Your task to perform on an android device: turn off sleep mode Image 0: 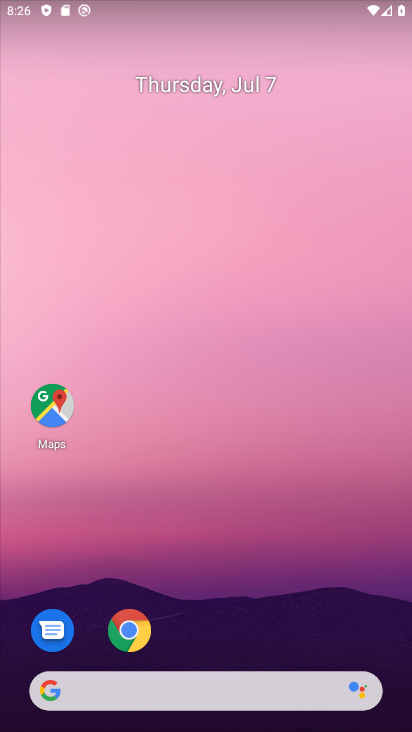
Step 0: drag from (214, 654) to (220, 192)
Your task to perform on an android device: turn off sleep mode Image 1: 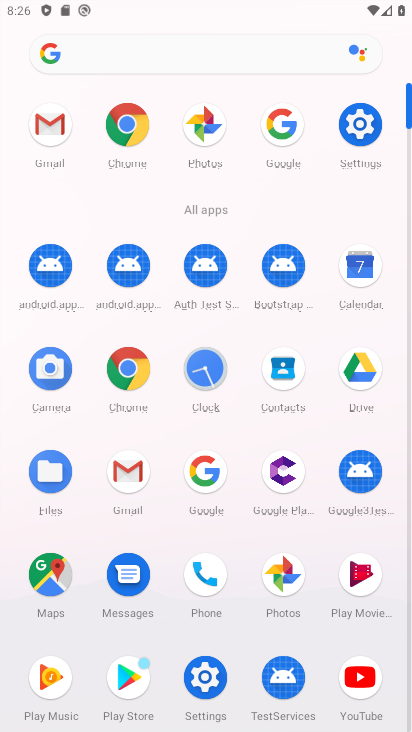
Step 1: click (346, 123)
Your task to perform on an android device: turn off sleep mode Image 2: 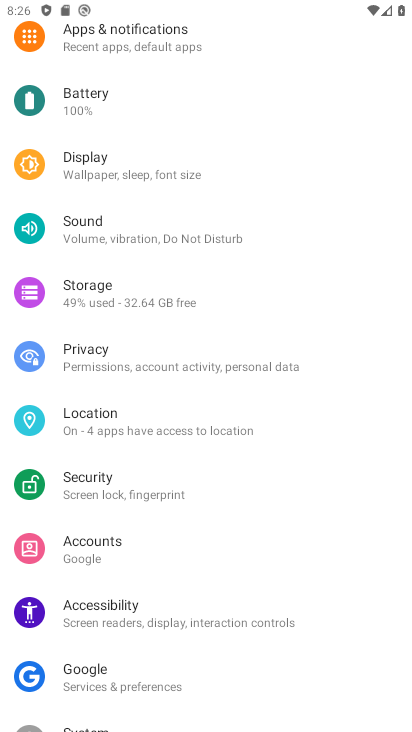
Step 2: click (101, 167)
Your task to perform on an android device: turn off sleep mode Image 3: 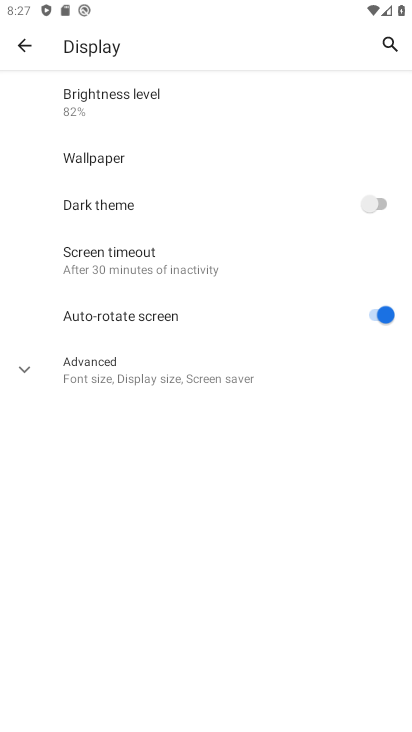
Step 3: click (129, 255)
Your task to perform on an android device: turn off sleep mode Image 4: 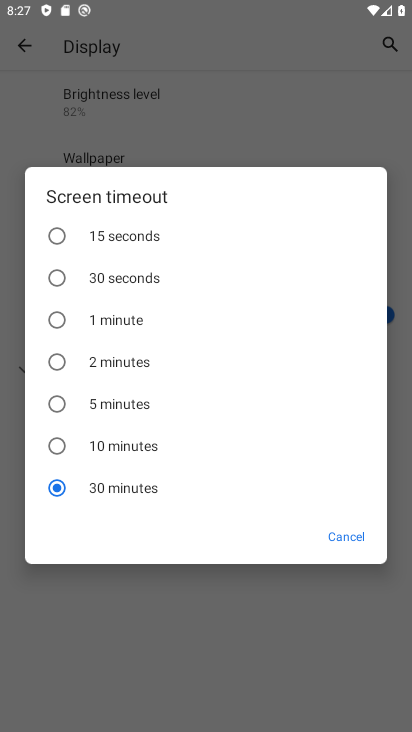
Step 4: click (169, 339)
Your task to perform on an android device: turn off sleep mode Image 5: 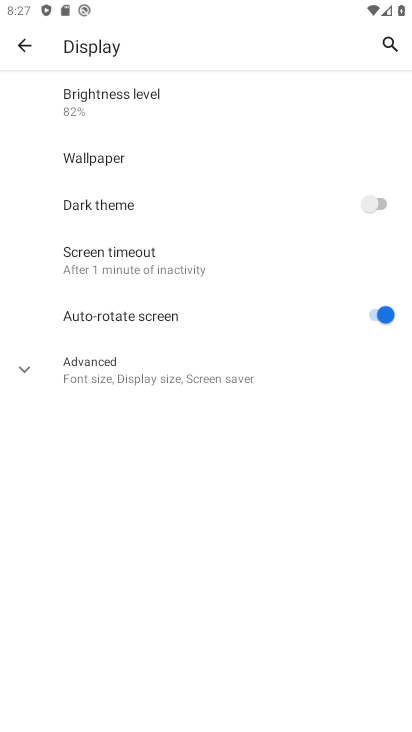
Step 5: task complete